Your task to perform on an android device: Show me productivity apps on the Play Store Image 0: 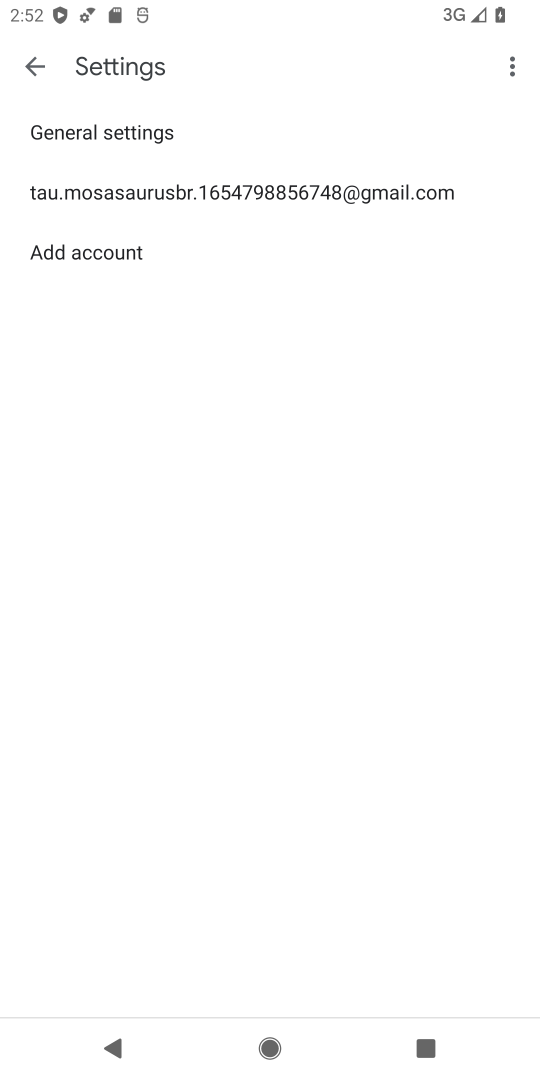
Step 0: press home button
Your task to perform on an android device: Show me productivity apps on the Play Store Image 1: 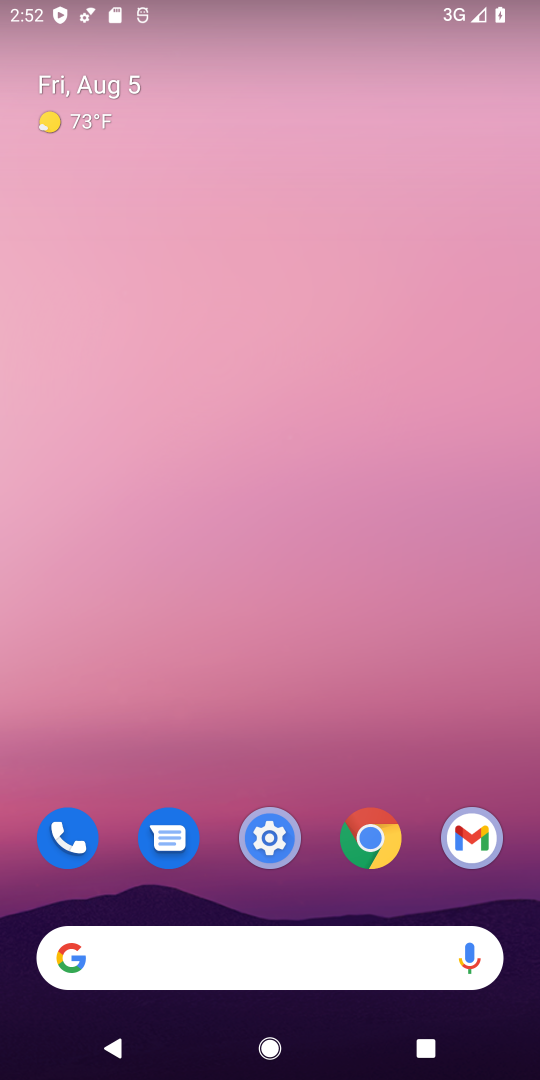
Step 1: drag from (283, 872) to (296, 257)
Your task to perform on an android device: Show me productivity apps on the Play Store Image 2: 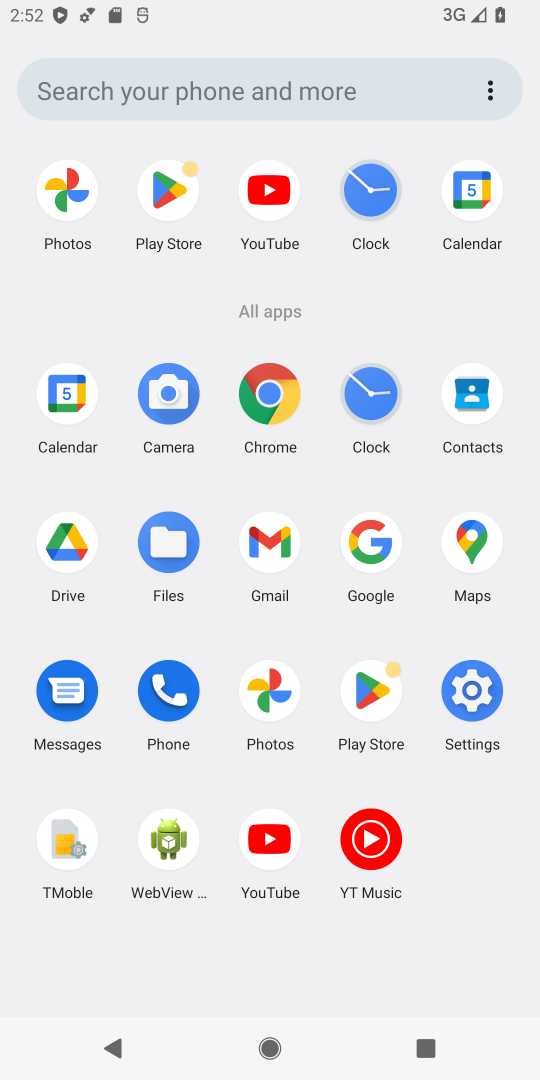
Step 2: click (362, 706)
Your task to perform on an android device: Show me productivity apps on the Play Store Image 3: 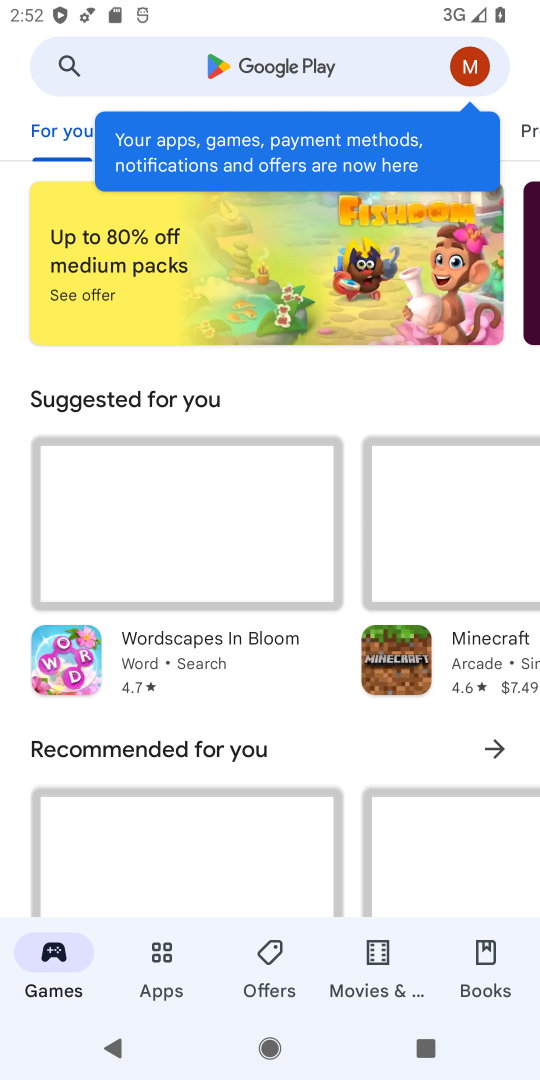
Step 3: click (167, 956)
Your task to perform on an android device: Show me productivity apps on the Play Store Image 4: 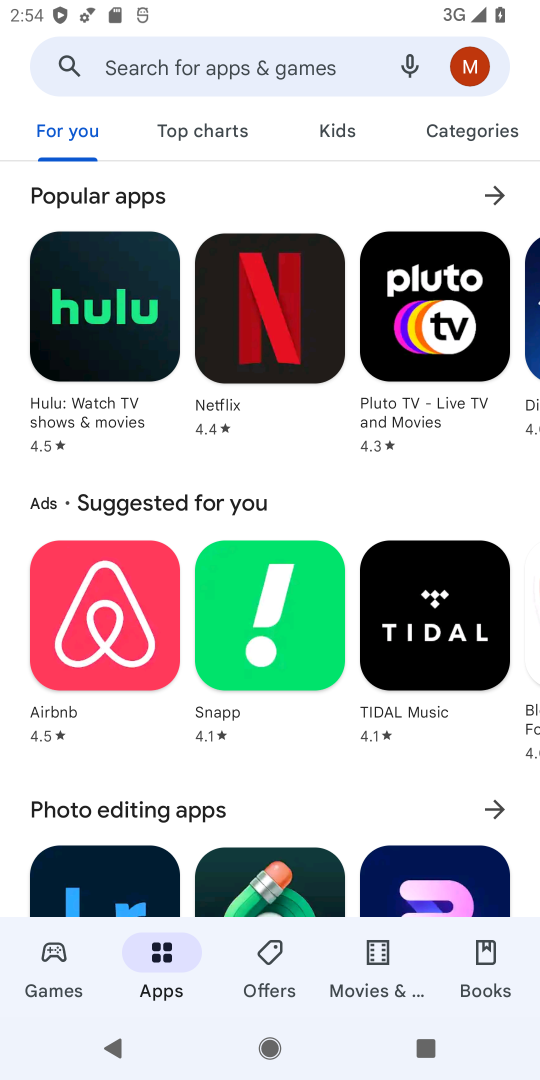
Step 4: task complete